Your task to perform on an android device: manage bookmarks in the chrome app Image 0: 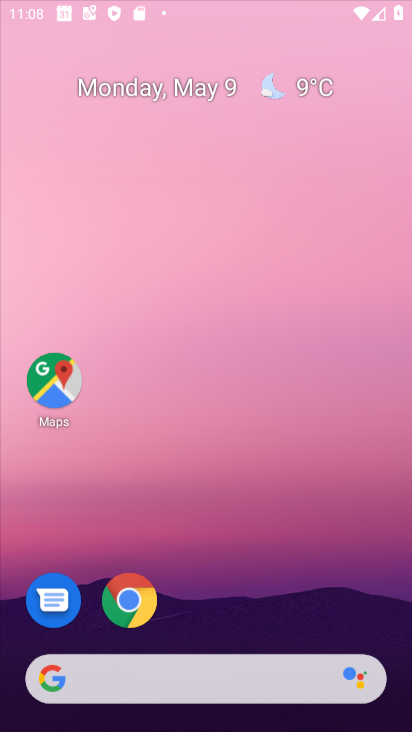
Step 0: drag from (373, 608) to (373, 155)
Your task to perform on an android device: manage bookmarks in the chrome app Image 1: 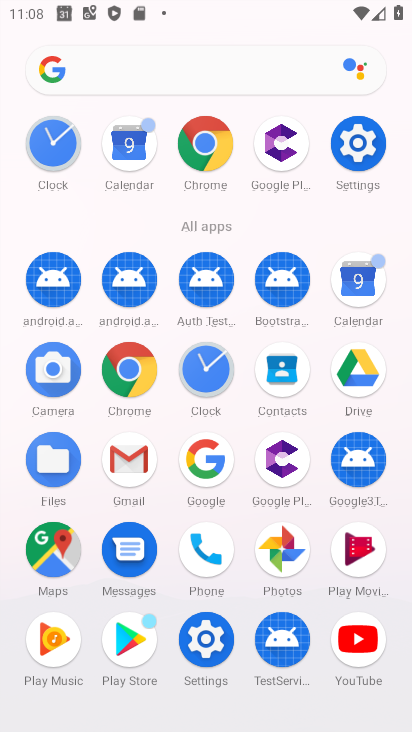
Step 1: click (217, 153)
Your task to perform on an android device: manage bookmarks in the chrome app Image 2: 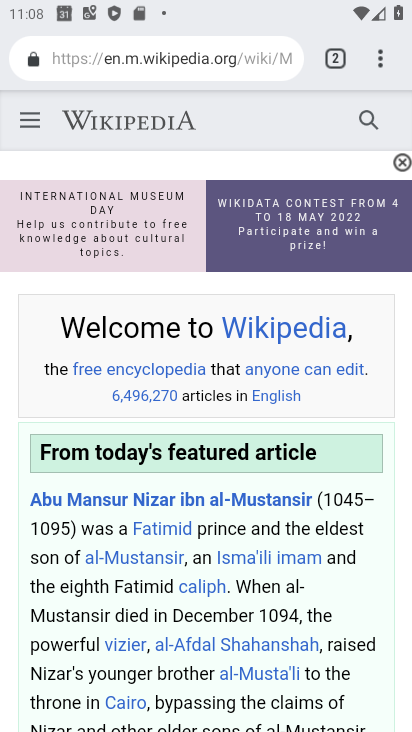
Step 2: click (385, 65)
Your task to perform on an android device: manage bookmarks in the chrome app Image 3: 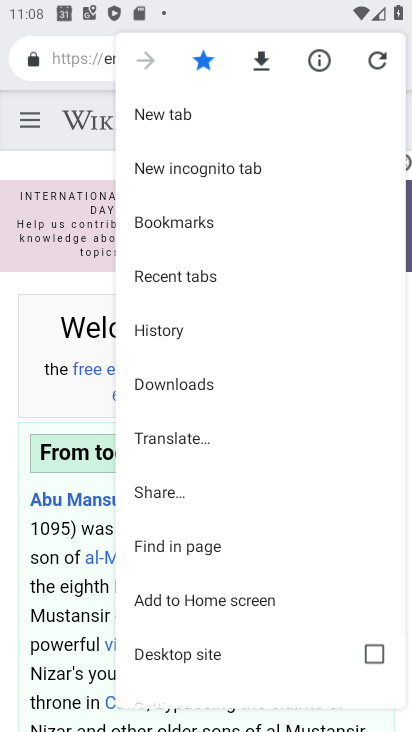
Step 3: click (239, 225)
Your task to perform on an android device: manage bookmarks in the chrome app Image 4: 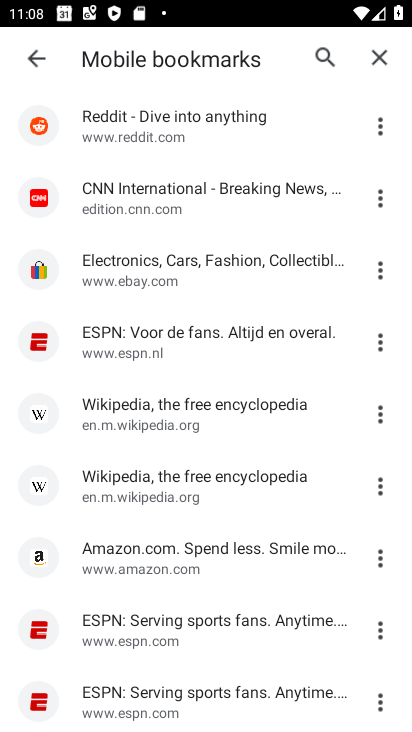
Step 4: drag from (288, 517) to (280, 211)
Your task to perform on an android device: manage bookmarks in the chrome app Image 5: 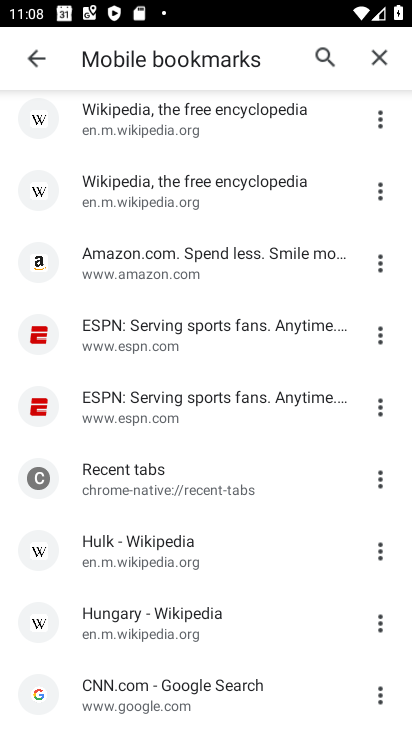
Step 5: click (380, 125)
Your task to perform on an android device: manage bookmarks in the chrome app Image 6: 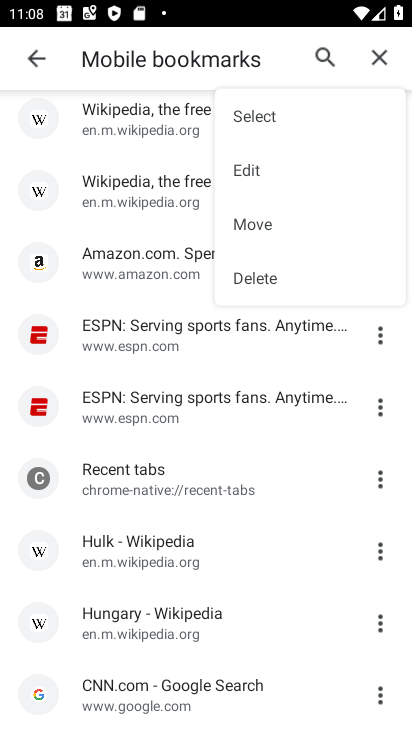
Step 6: click (255, 282)
Your task to perform on an android device: manage bookmarks in the chrome app Image 7: 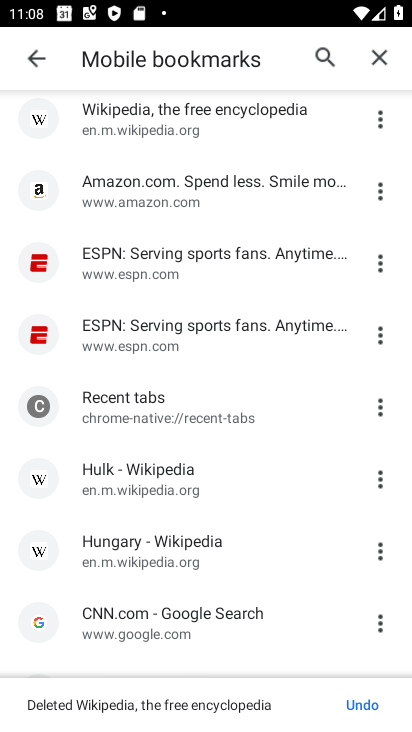
Step 7: task complete